Your task to perform on an android device: change text size in settings app Image 0: 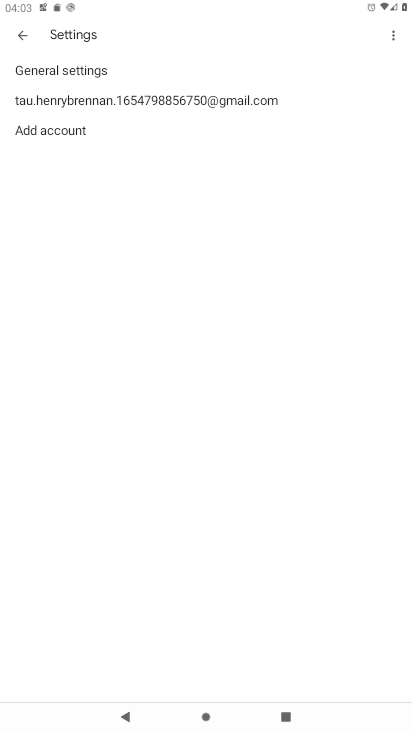
Step 0: click (22, 41)
Your task to perform on an android device: change text size in settings app Image 1: 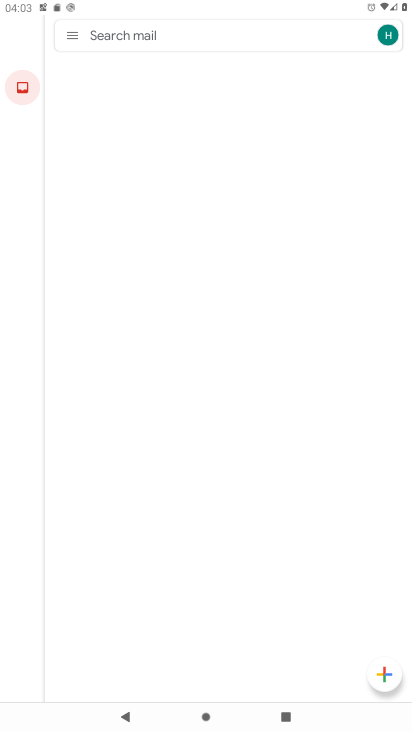
Step 1: click (152, 29)
Your task to perform on an android device: change text size in settings app Image 2: 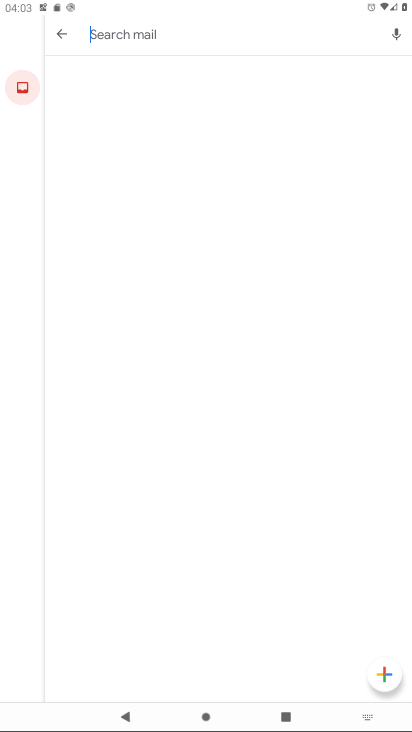
Step 2: press home button
Your task to perform on an android device: change text size in settings app Image 3: 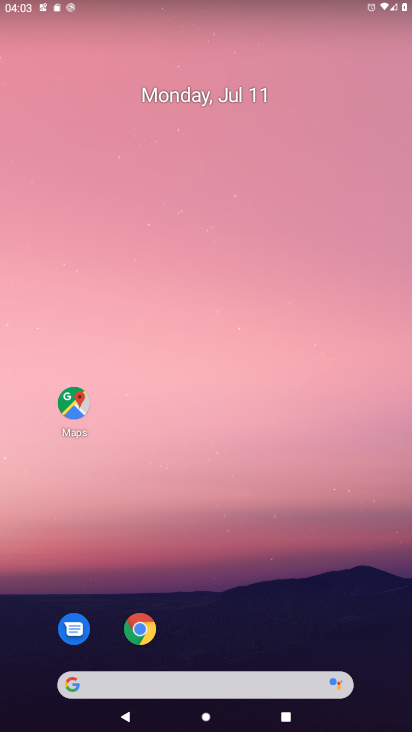
Step 3: drag from (190, 611) to (212, 30)
Your task to perform on an android device: change text size in settings app Image 4: 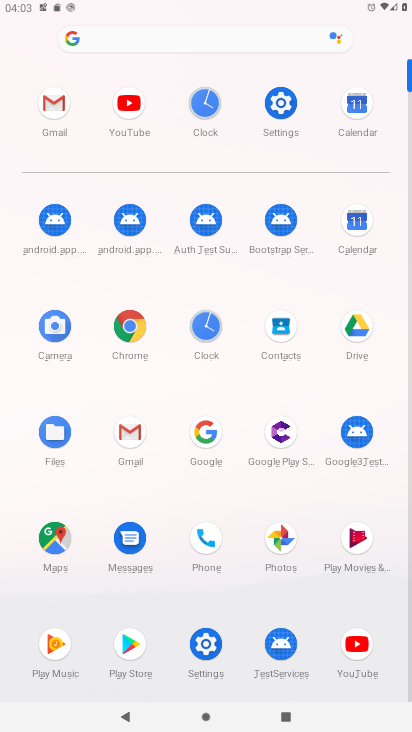
Step 4: click (281, 106)
Your task to perform on an android device: change text size in settings app Image 5: 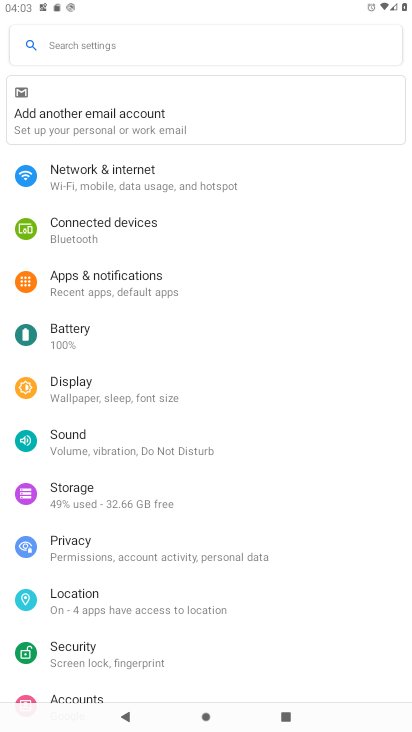
Step 5: click (135, 55)
Your task to perform on an android device: change text size in settings app Image 6: 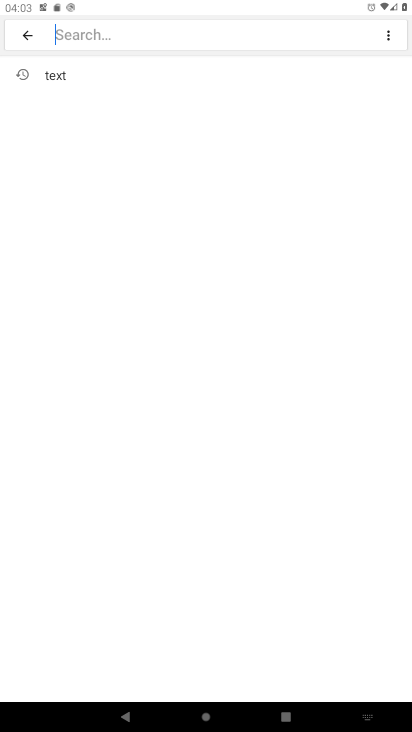
Step 6: type "text size"
Your task to perform on an android device: change text size in settings app Image 7: 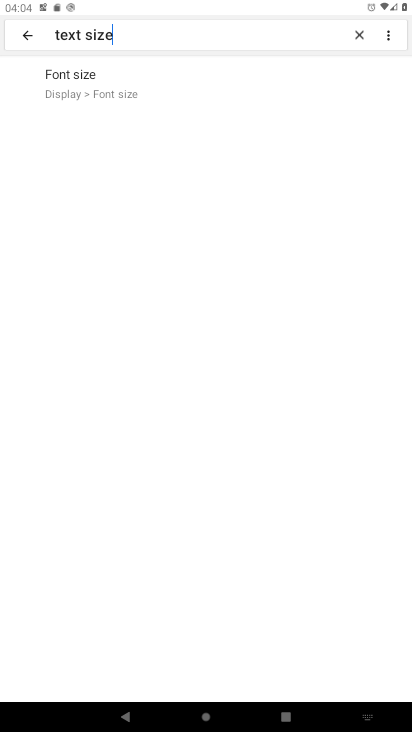
Step 7: click (131, 86)
Your task to perform on an android device: change text size in settings app Image 8: 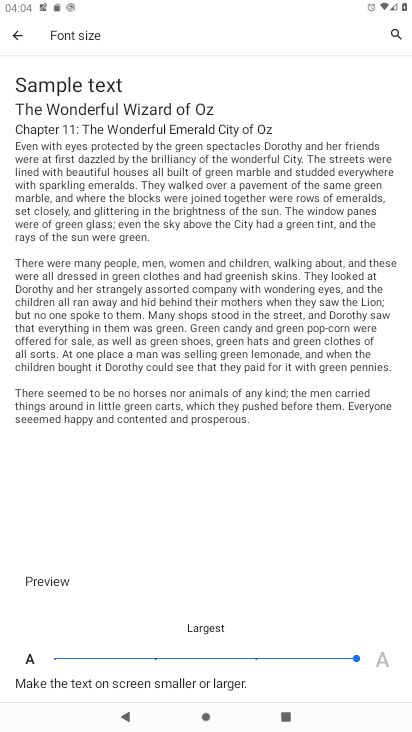
Step 8: click (256, 661)
Your task to perform on an android device: change text size in settings app Image 9: 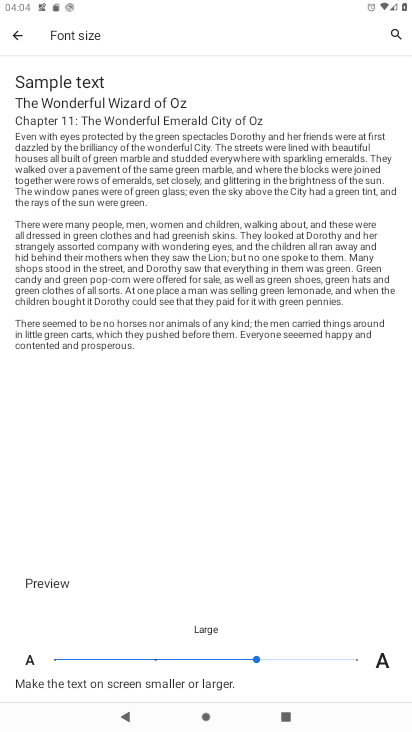
Step 9: task complete